Your task to perform on an android device: turn off javascript in the chrome app Image 0: 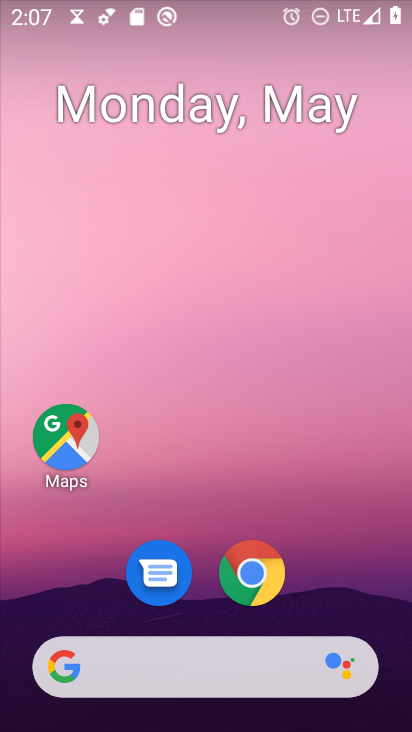
Step 0: drag from (290, 626) to (300, 34)
Your task to perform on an android device: turn off javascript in the chrome app Image 1: 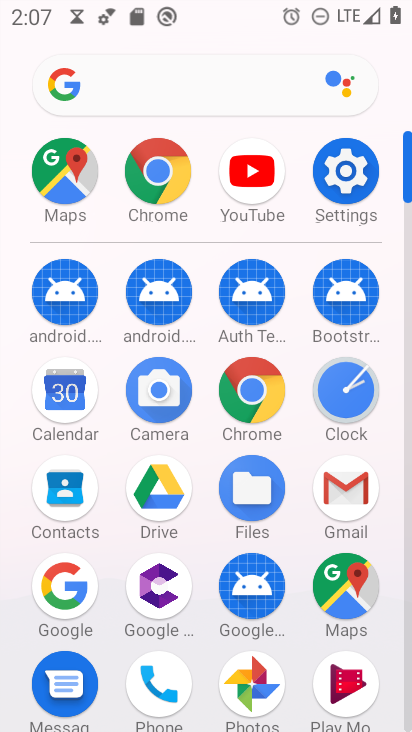
Step 1: click (272, 377)
Your task to perform on an android device: turn off javascript in the chrome app Image 2: 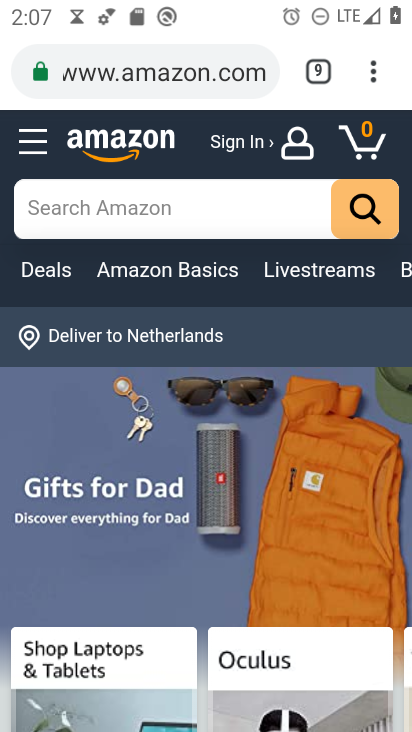
Step 2: drag from (375, 63) to (227, 588)
Your task to perform on an android device: turn off javascript in the chrome app Image 3: 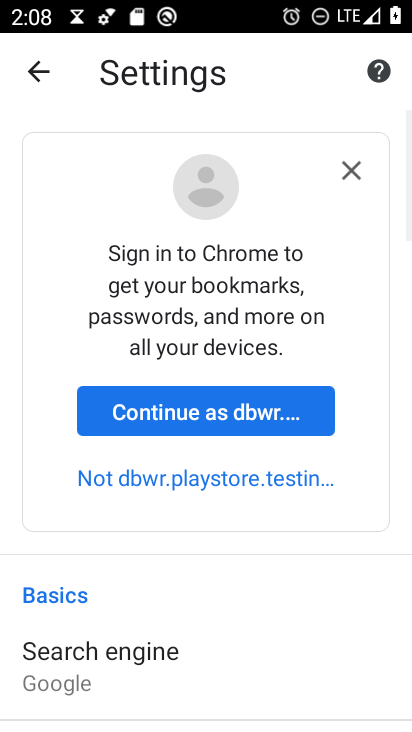
Step 3: drag from (180, 694) to (218, 11)
Your task to perform on an android device: turn off javascript in the chrome app Image 4: 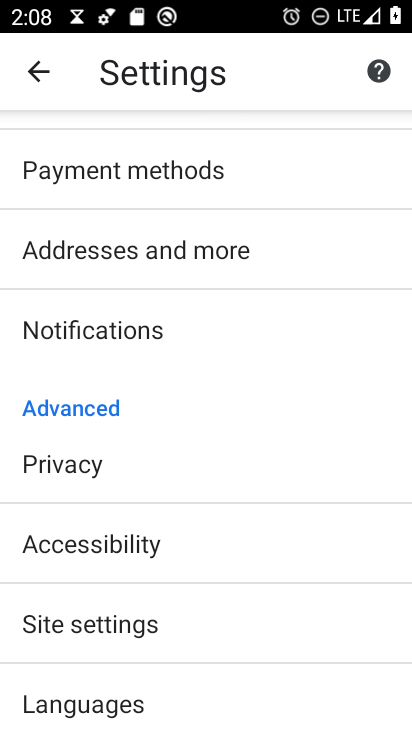
Step 4: click (201, 625)
Your task to perform on an android device: turn off javascript in the chrome app Image 5: 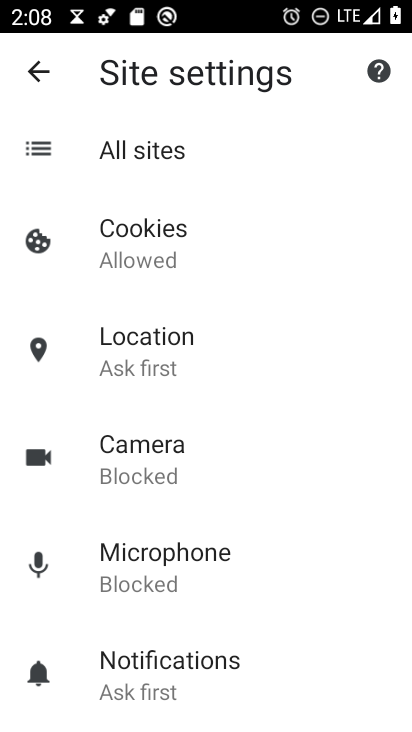
Step 5: drag from (260, 691) to (253, 161)
Your task to perform on an android device: turn off javascript in the chrome app Image 6: 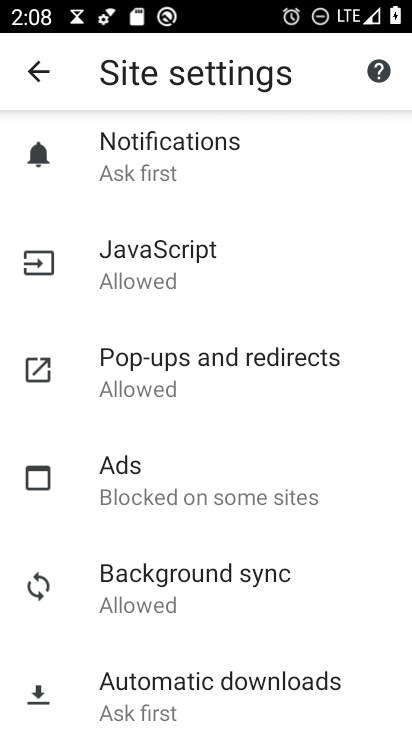
Step 6: click (218, 263)
Your task to perform on an android device: turn off javascript in the chrome app Image 7: 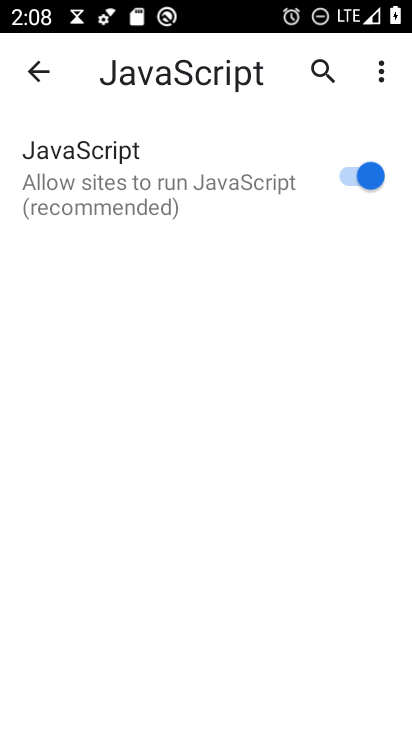
Step 7: task complete